Your task to perform on an android device: Open Google Chrome and click the shortcut for Amazon.com Image 0: 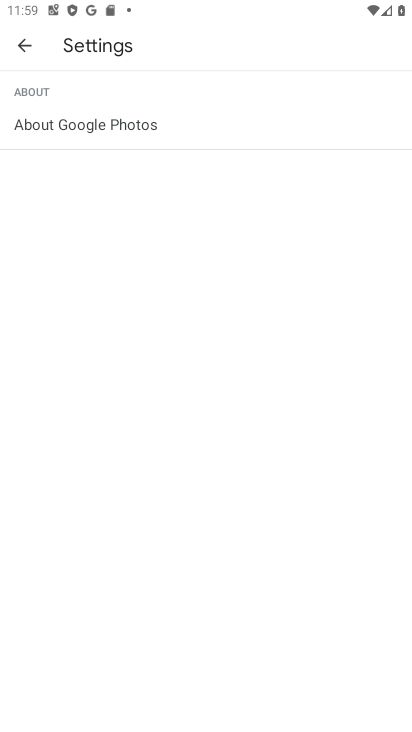
Step 0: press home button
Your task to perform on an android device: Open Google Chrome and click the shortcut for Amazon.com Image 1: 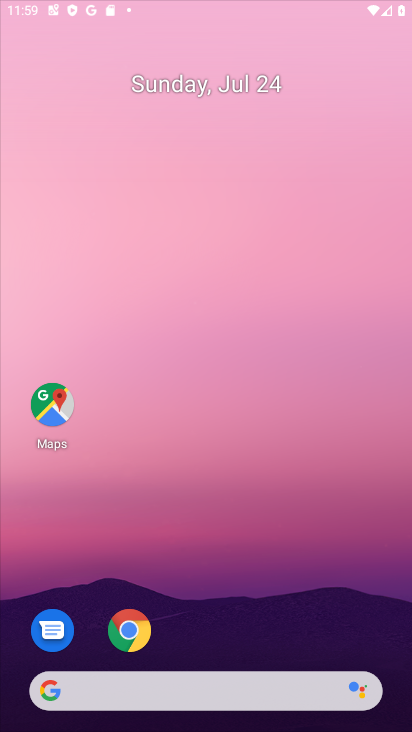
Step 1: drag from (305, 637) to (274, 262)
Your task to perform on an android device: Open Google Chrome and click the shortcut for Amazon.com Image 2: 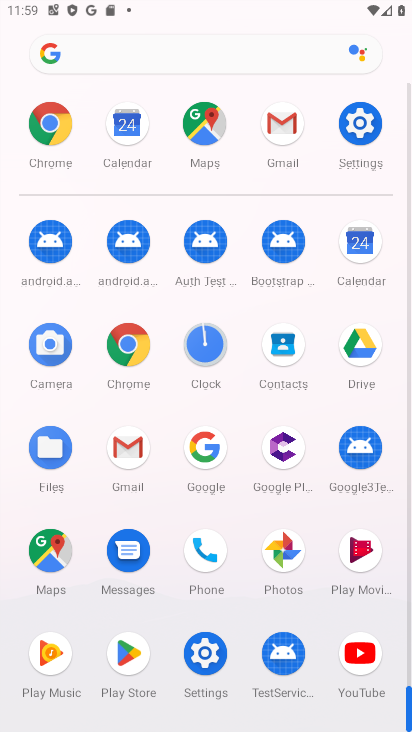
Step 2: click (70, 148)
Your task to perform on an android device: Open Google Chrome and click the shortcut for Amazon.com Image 3: 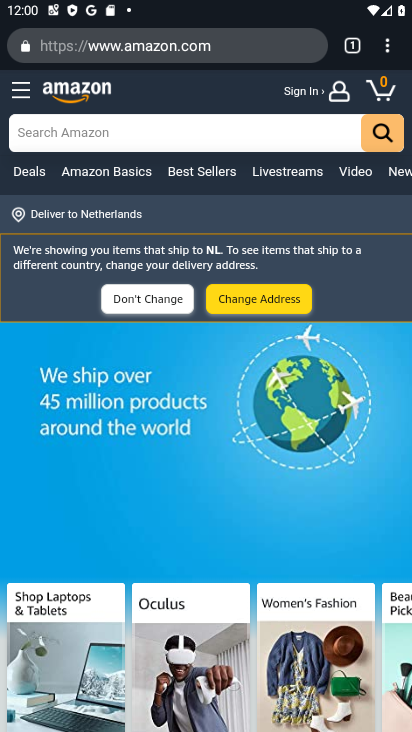
Step 3: drag from (386, 45) to (249, 607)
Your task to perform on an android device: Open Google Chrome and click the shortcut for Amazon.com Image 4: 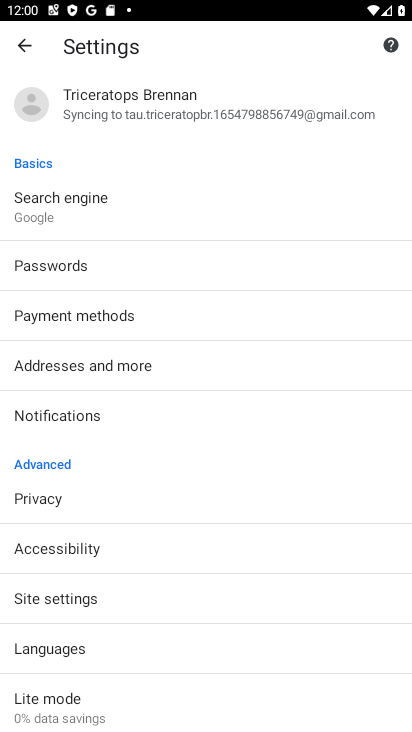
Step 4: click (30, 52)
Your task to perform on an android device: Open Google Chrome and click the shortcut for Amazon.com Image 5: 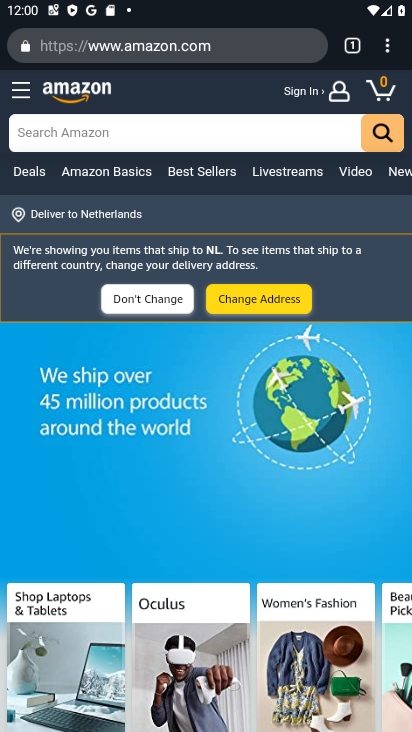
Step 5: click (354, 46)
Your task to perform on an android device: Open Google Chrome and click the shortcut for Amazon.com Image 6: 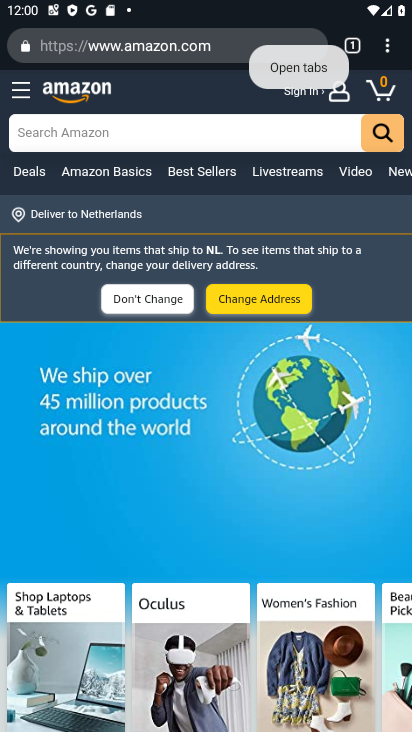
Step 6: click (354, 46)
Your task to perform on an android device: Open Google Chrome and click the shortcut for Amazon.com Image 7: 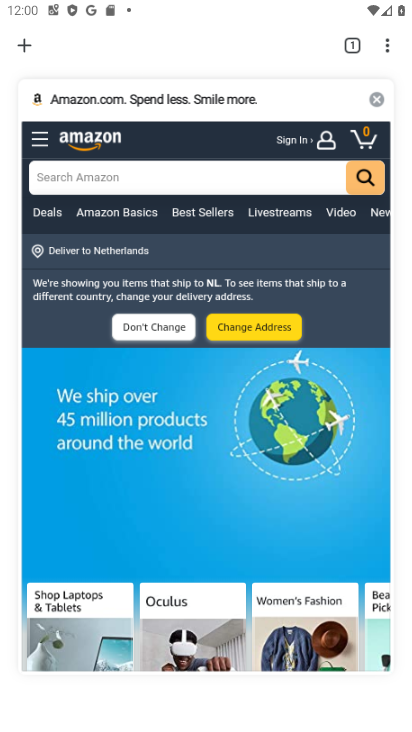
Step 7: click (19, 41)
Your task to perform on an android device: Open Google Chrome and click the shortcut for Amazon.com Image 8: 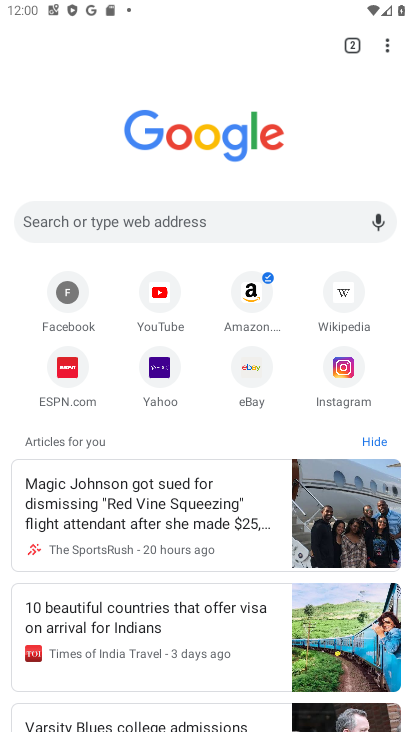
Step 8: click (265, 277)
Your task to perform on an android device: Open Google Chrome and click the shortcut for Amazon.com Image 9: 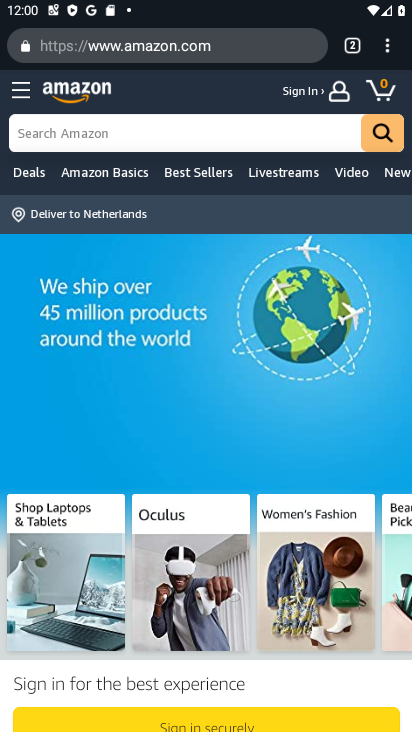
Step 9: task complete